Your task to perform on an android device: Add macbook air to the cart on bestbuy.com Image 0: 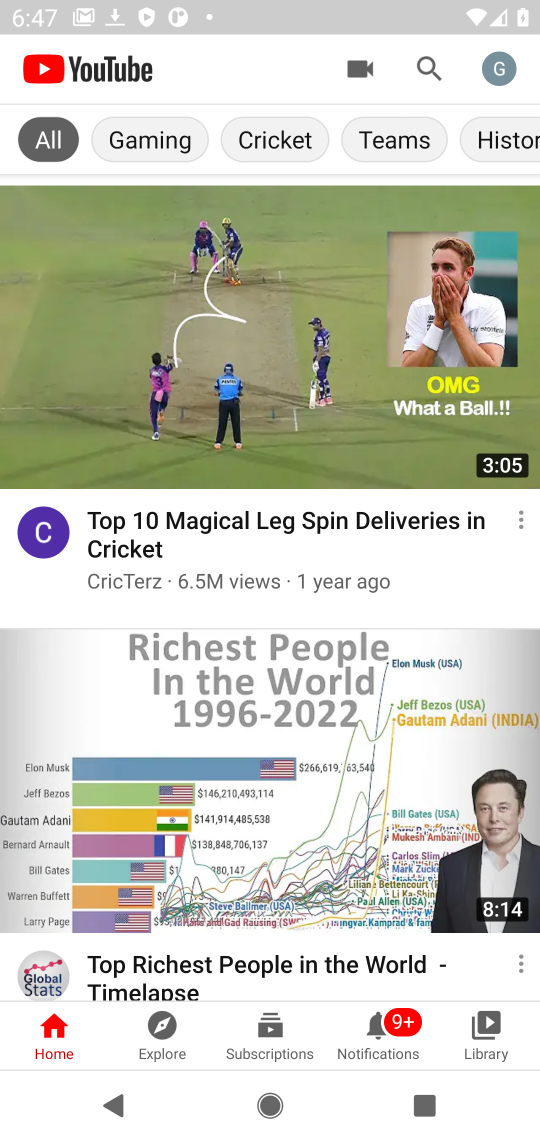
Step 0: press home button
Your task to perform on an android device: Add macbook air to the cart on bestbuy.com Image 1: 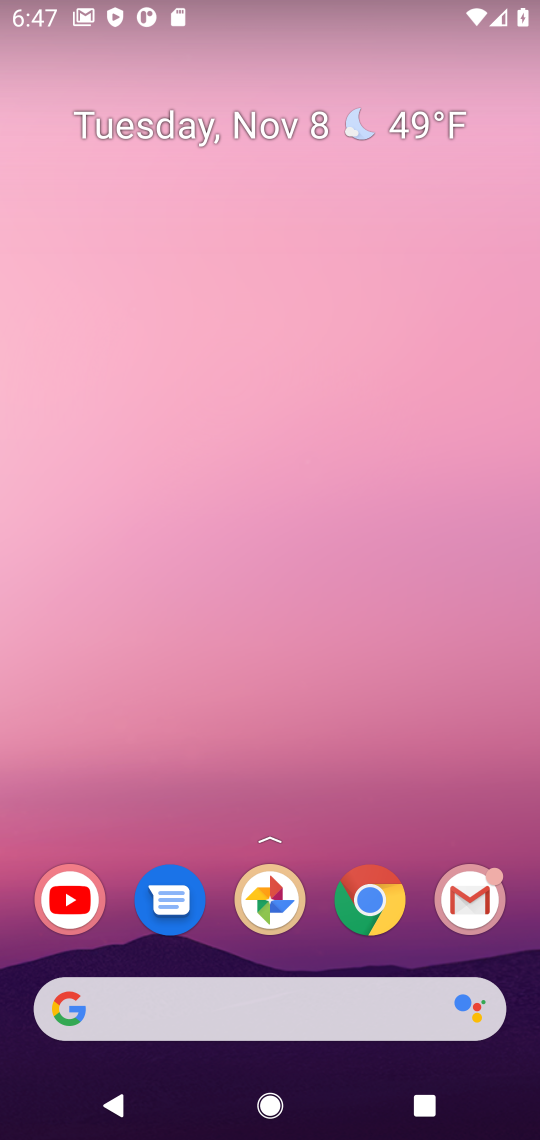
Step 1: click (366, 928)
Your task to perform on an android device: Add macbook air to the cart on bestbuy.com Image 2: 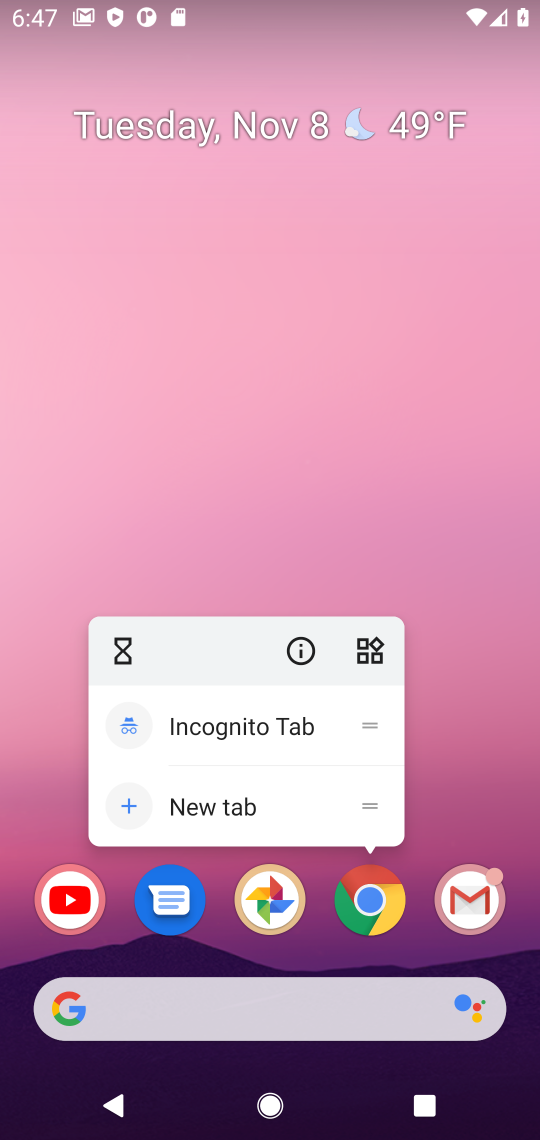
Step 2: click (379, 928)
Your task to perform on an android device: Add macbook air to the cart on bestbuy.com Image 3: 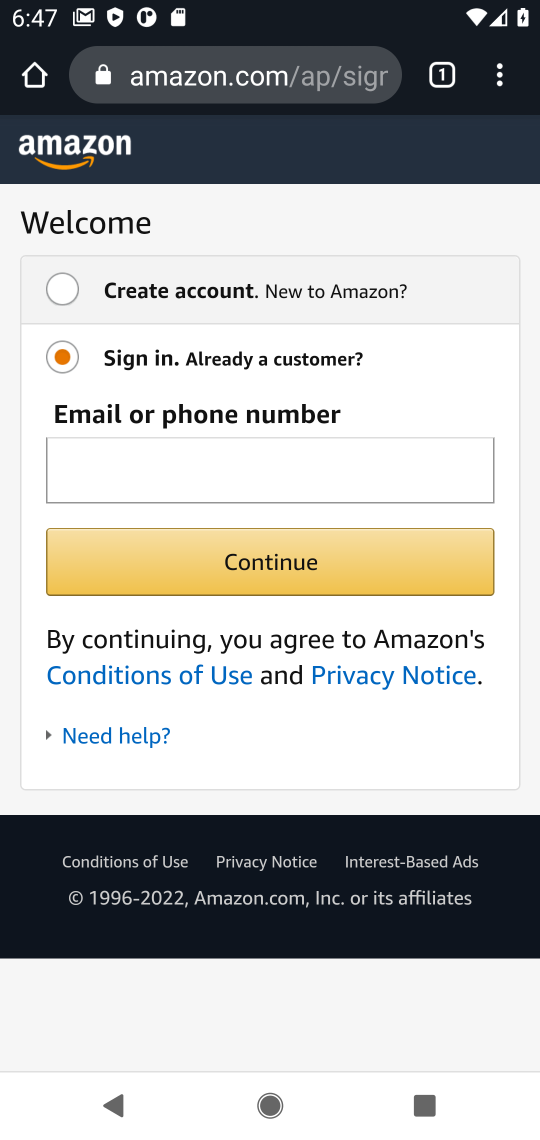
Step 3: click (238, 75)
Your task to perform on an android device: Add macbook air to the cart on bestbuy.com Image 4: 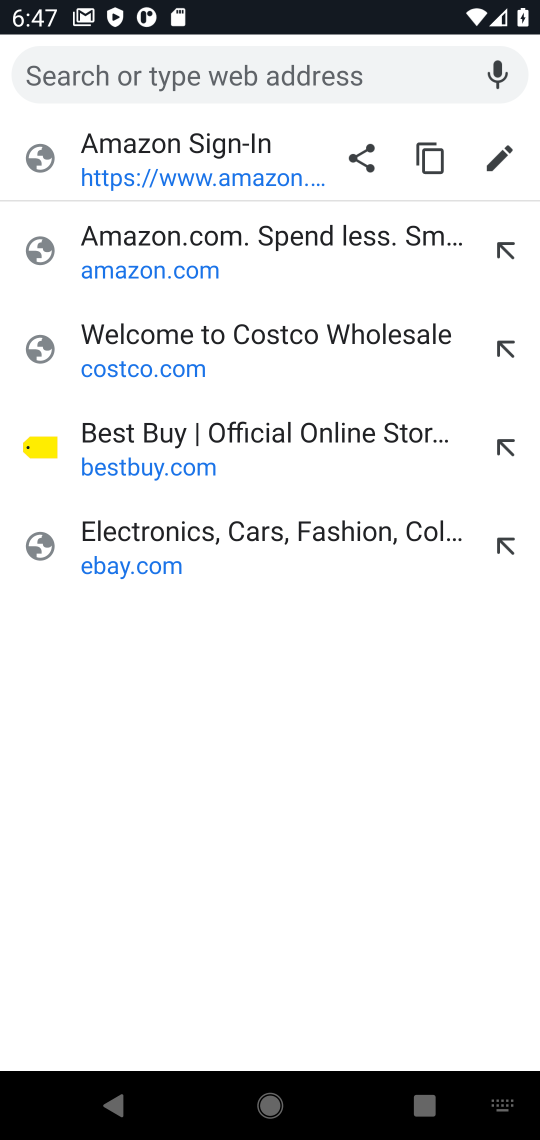
Step 4: type "bestbuy.com"
Your task to perform on an android device: Add macbook air to the cart on bestbuy.com Image 5: 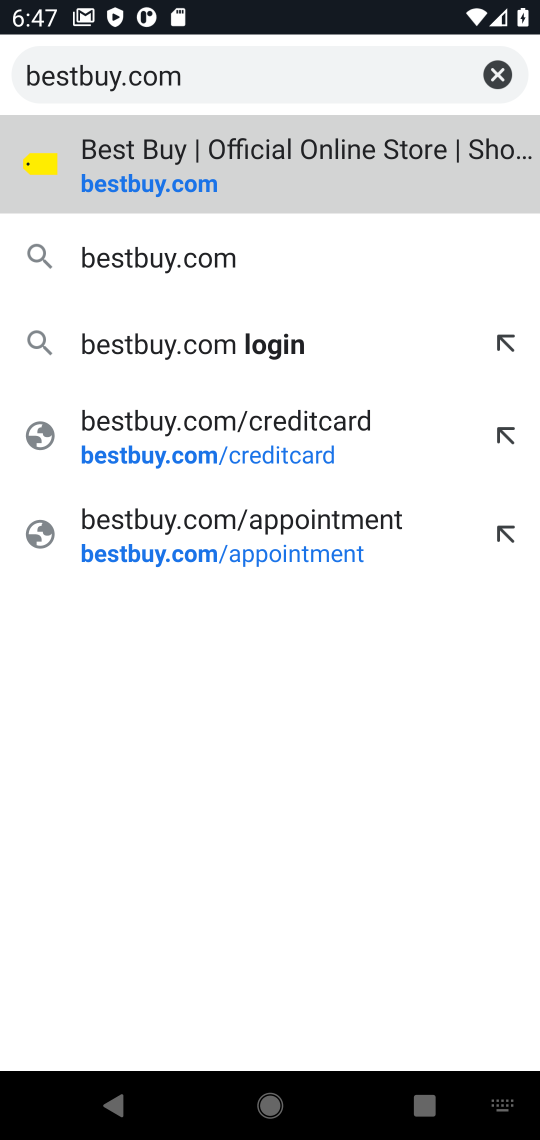
Step 5: press enter
Your task to perform on an android device: Add macbook air to the cart on bestbuy.com Image 6: 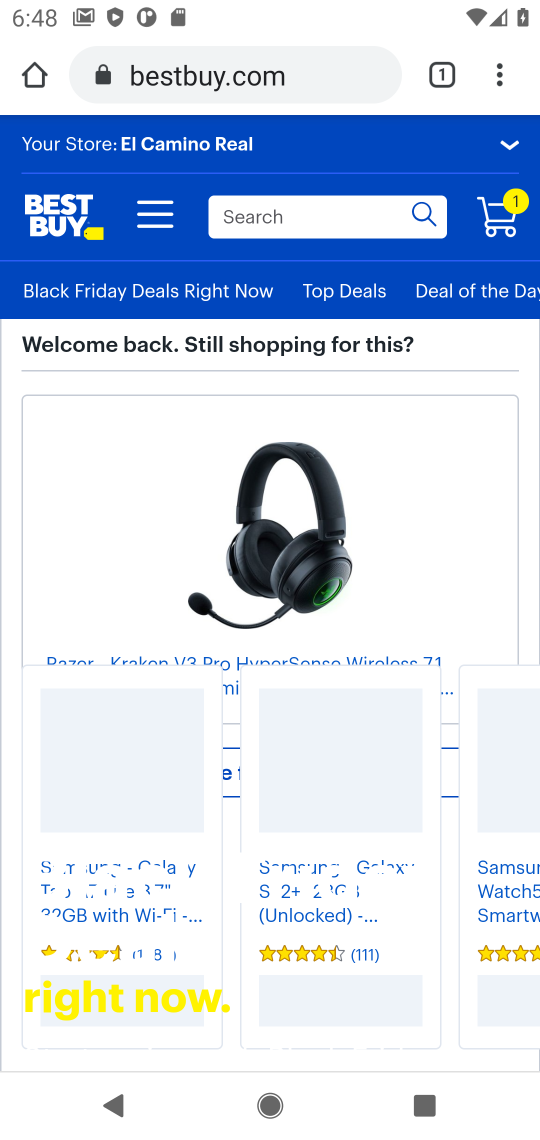
Step 6: click (329, 214)
Your task to perform on an android device: Add macbook air to the cart on bestbuy.com Image 7: 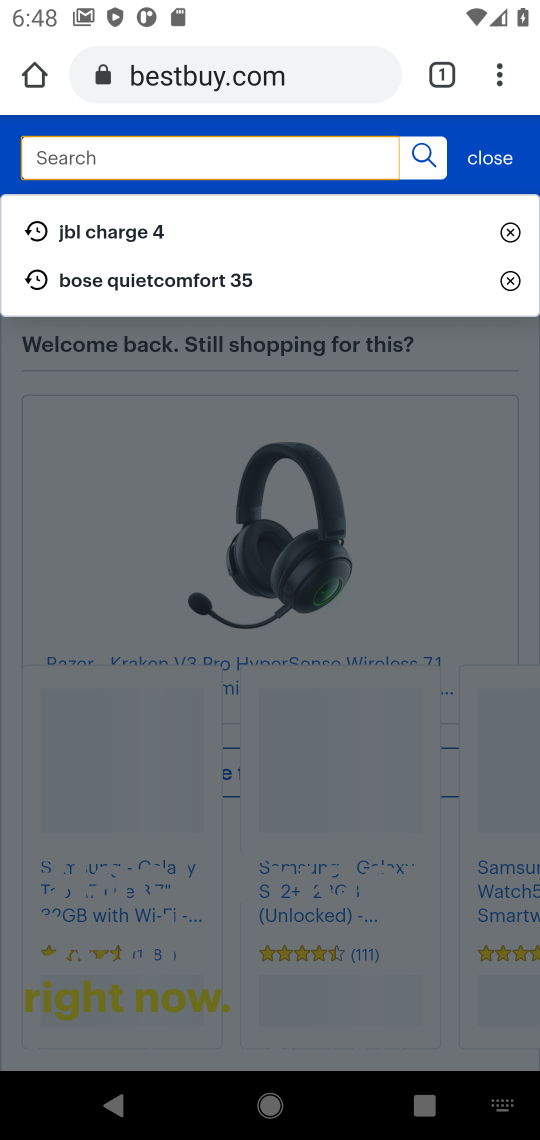
Step 7: type "macbook air"
Your task to perform on an android device: Add macbook air to the cart on bestbuy.com Image 8: 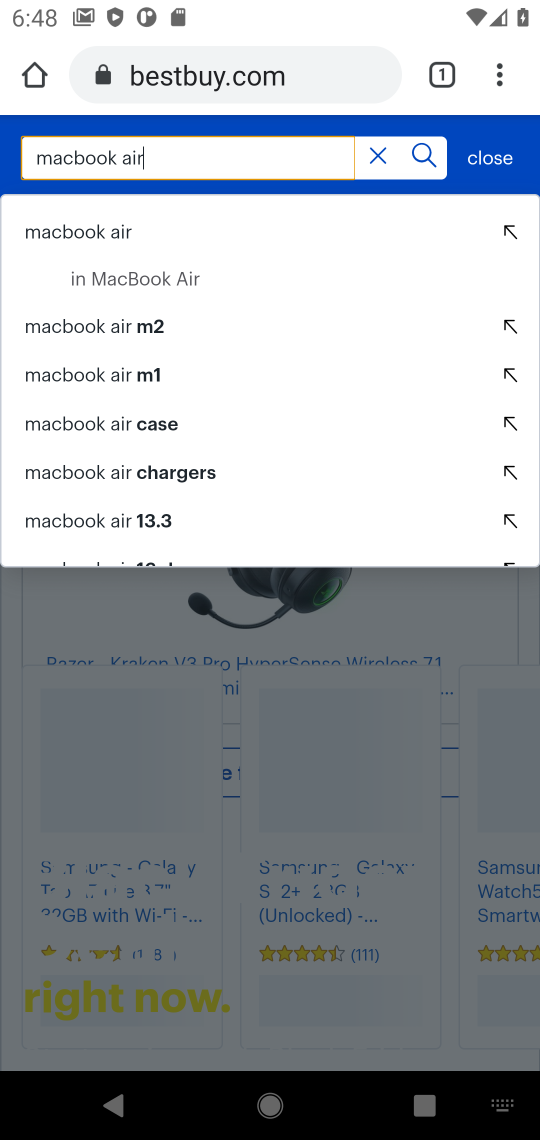
Step 8: press enter
Your task to perform on an android device: Add macbook air to the cart on bestbuy.com Image 9: 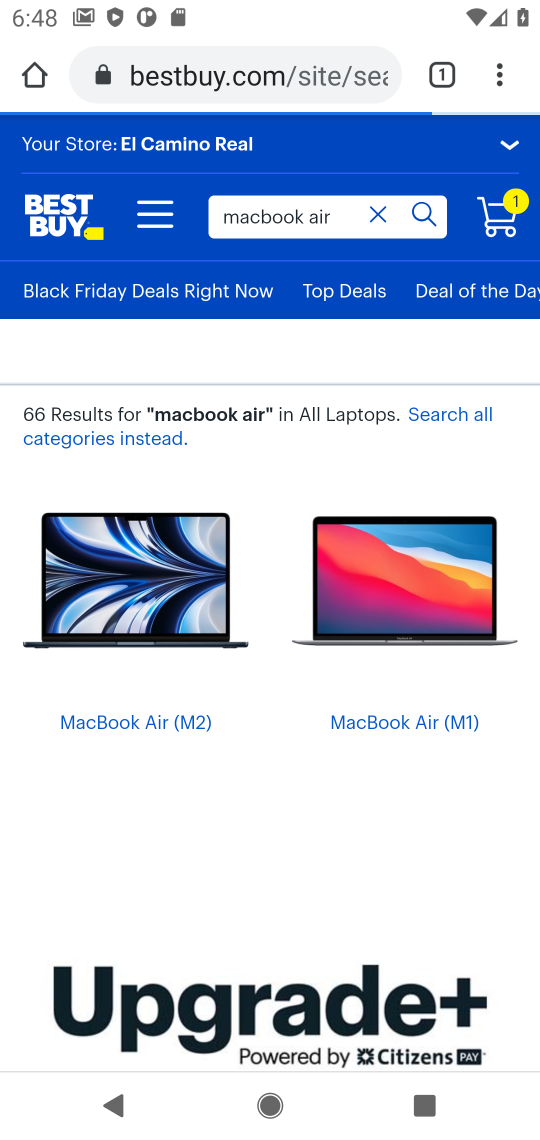
Step 9: drag from (269, 838) to (307, 261)
Your task to perform on an android device: Add macbook air to the cart on bestbuy.com Image 10: 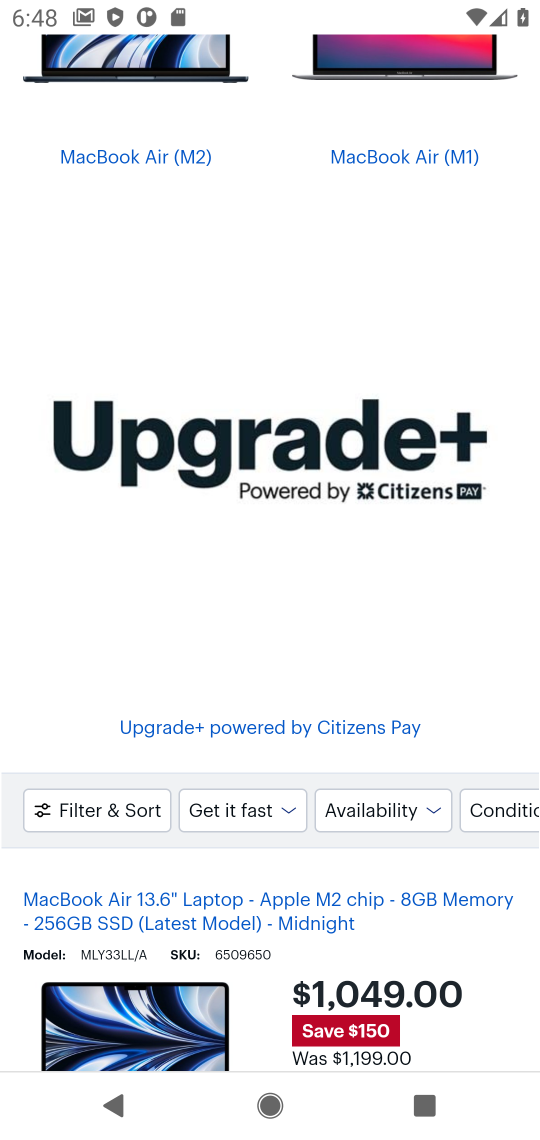
Step 10: click (282, 910)
Your task to perform on an android device: Add macbook air to the cart on bestbuy.com Image 11: 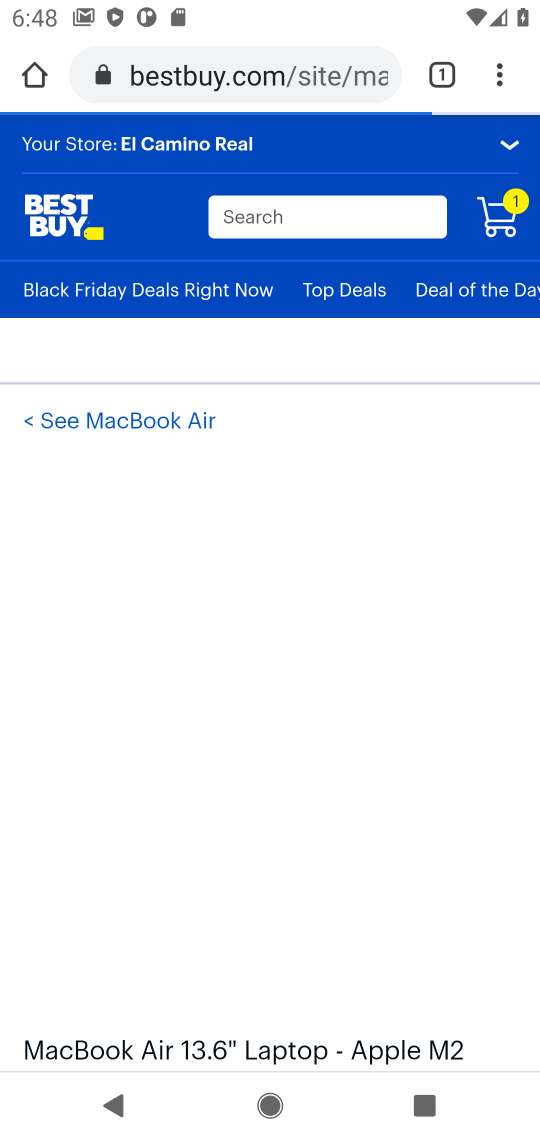
Step 11: drag from (370, 1016) to (426, 113)
Your task to perform on an android device: Add macbook air to the cart on bestbuy.com Image 12: 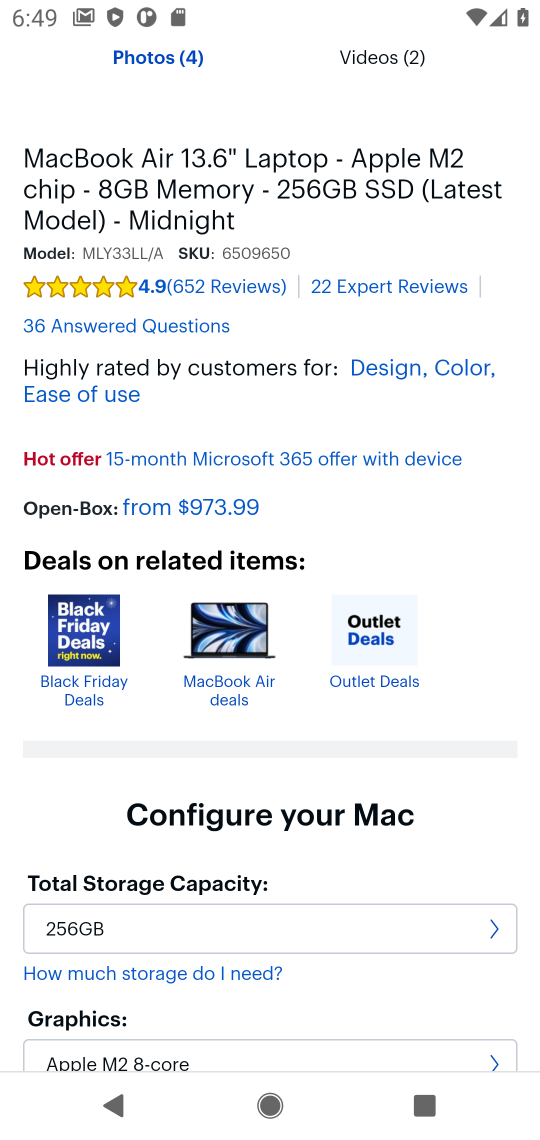
Step 12: drag from (264, 1006) to (298, 437)
Your task to perform on an android device: Add macbook air to the cart on bestbuy.com Image 13: 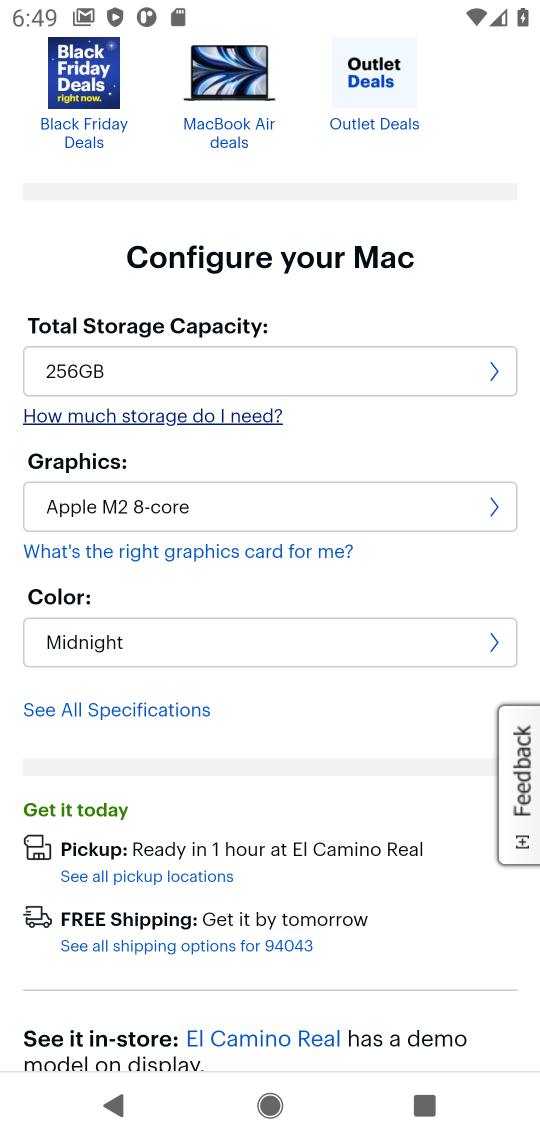
Step 13: drag from (279, 828) to (295, 490)
Your task to perform on an android device: Add macbook air to the cart on bestbuy.com Image 14: 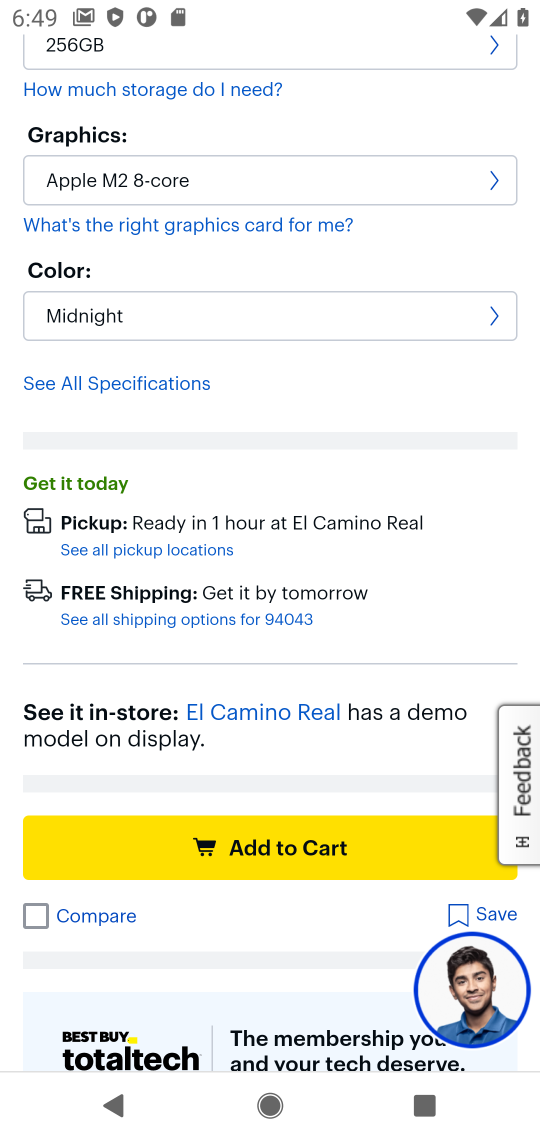
Step 14: click (243, 838)
Your task to perform on an android device: Add macbook air to the cart on bestbuy.com Image 15: 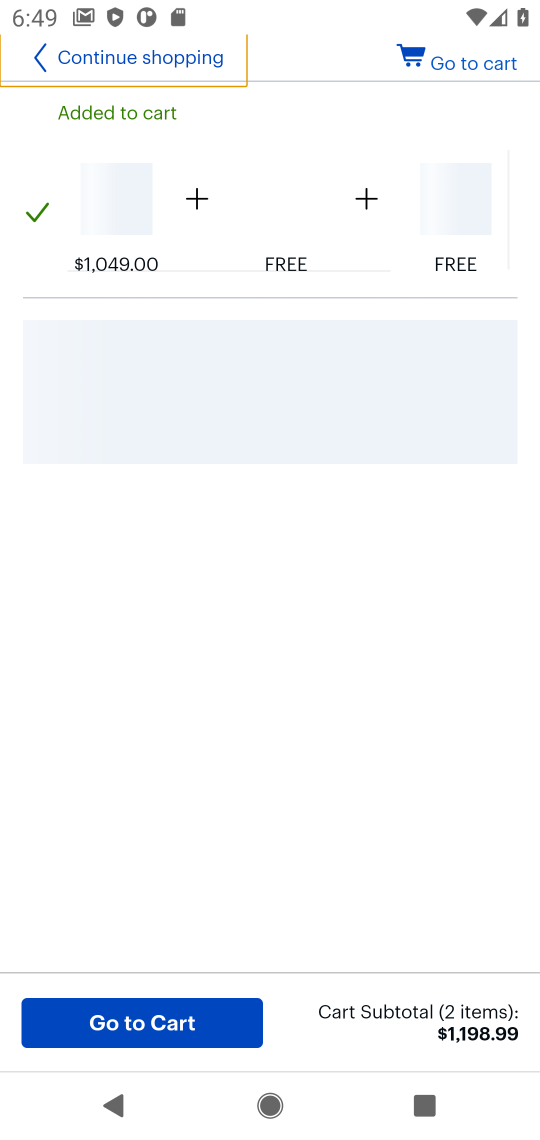
Step 15: click (173, 1025)
Your task to perform on an android device: Add macbook air to the cart on bestbuy.com Image 16: 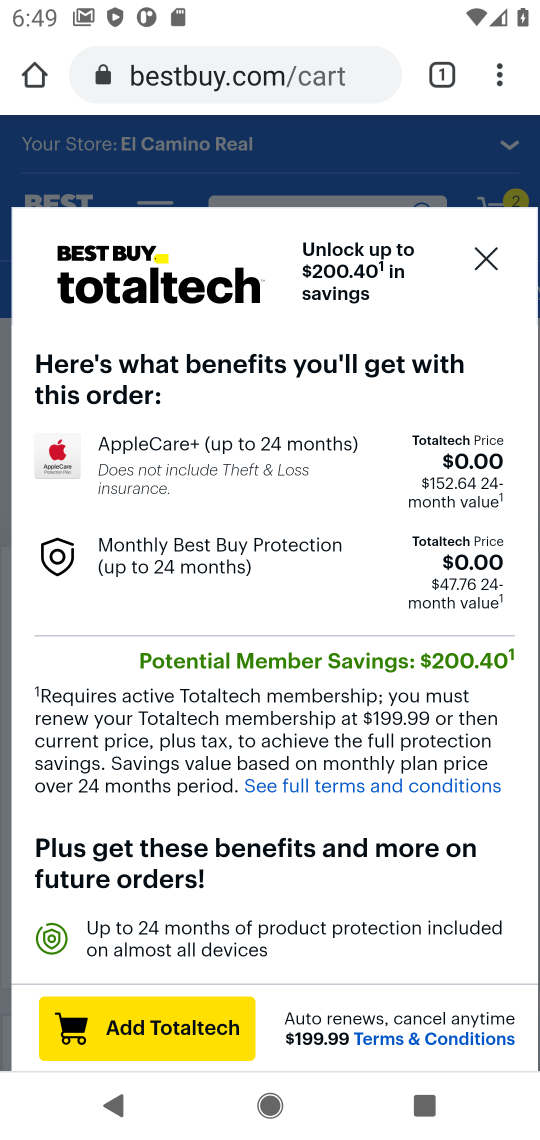
Step 16: click (452, 262)
Your task to perform on an android device: Add macbook air to the cart on bestbuy.com Image 17: 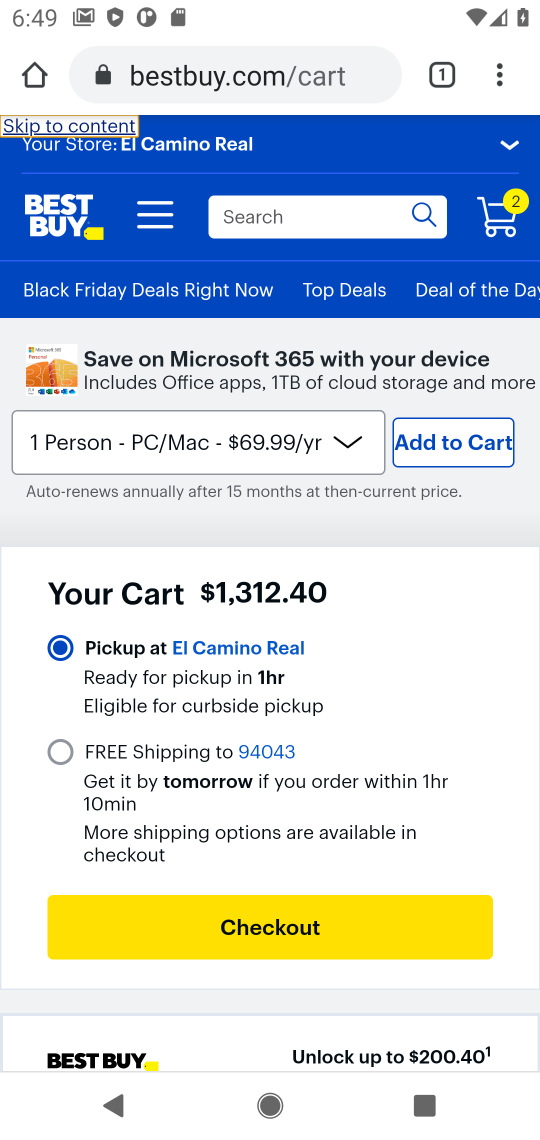
Step 17: task complete